Your task to perform on an android device: What's the weather? Image 0: 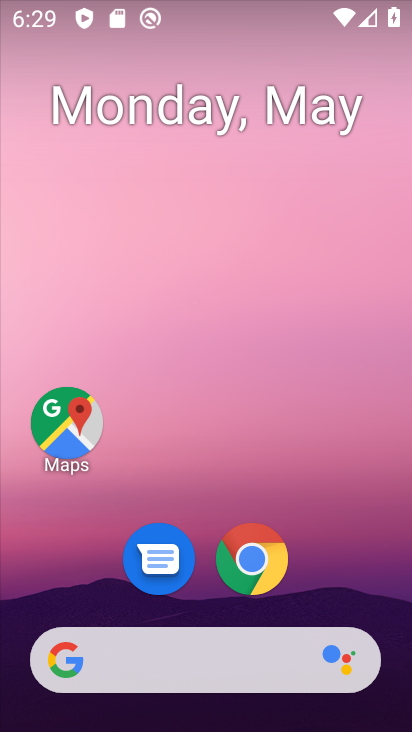
Step 0: drag from (390, 642) to (332, 2)
Your task to perform on an android device: What's the weather? Image 1: 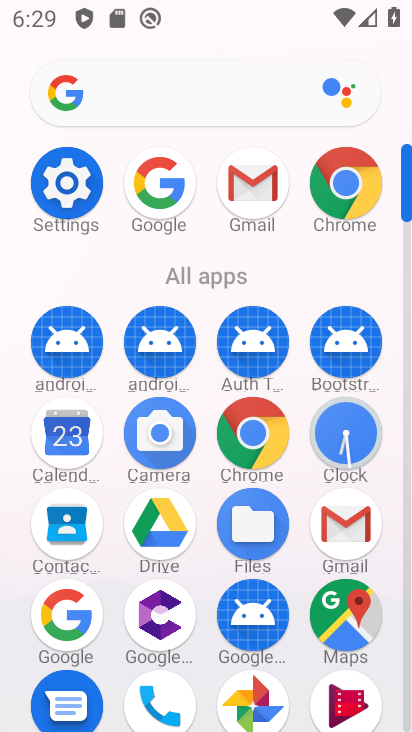
Step 1: click (160, 192)
Your task to perform on an android device: What's the weather? Image 2: 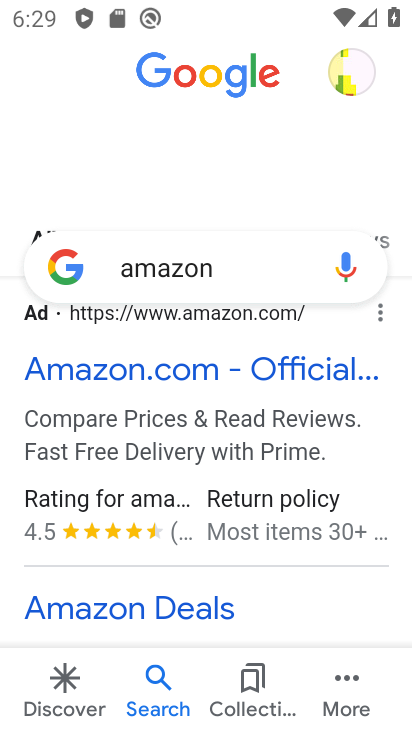
Step 2: press back button
Your task to perform on an android device: What's the weather? Image 3: 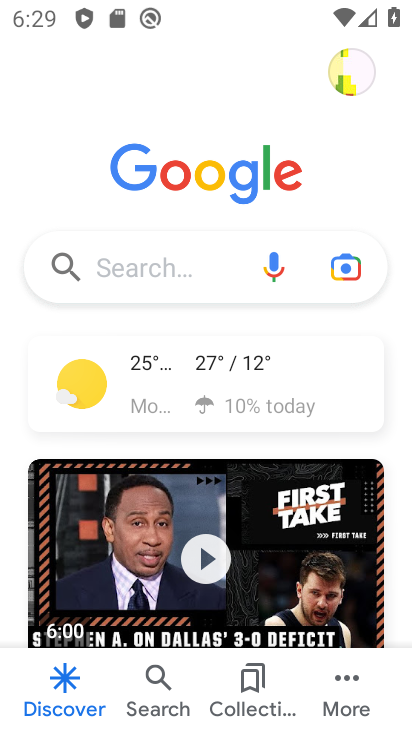
Step 3: click (141, 270)
Your task to perform on an android device: What's the weather? Image 4: 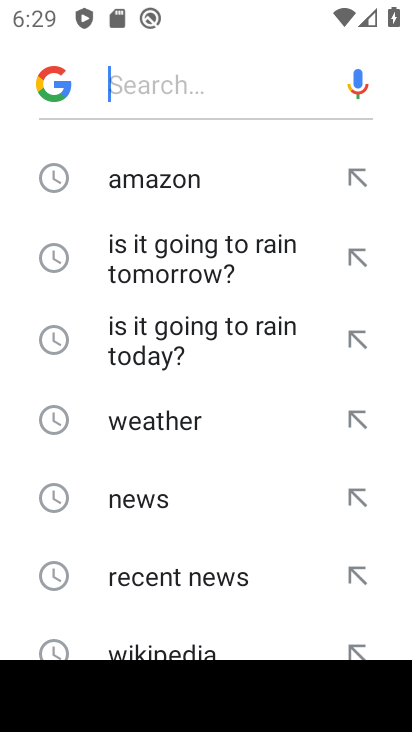
Step 4: click (157, 429)
Your task to perform on an android device: What's the weather? Image 5: 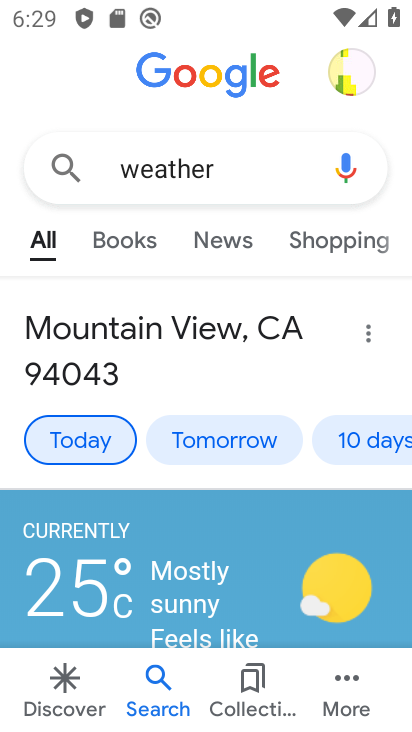
Step 5: task complete